Your task to perform on an android device: Open battery settings Image 0: 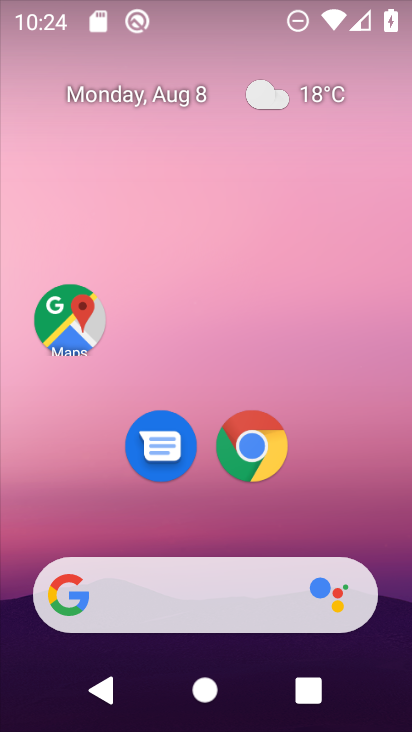
Step 0: drag from (396, 608) to (349, 113)
Your task to perform on an android device: Open battery settings Image 1: 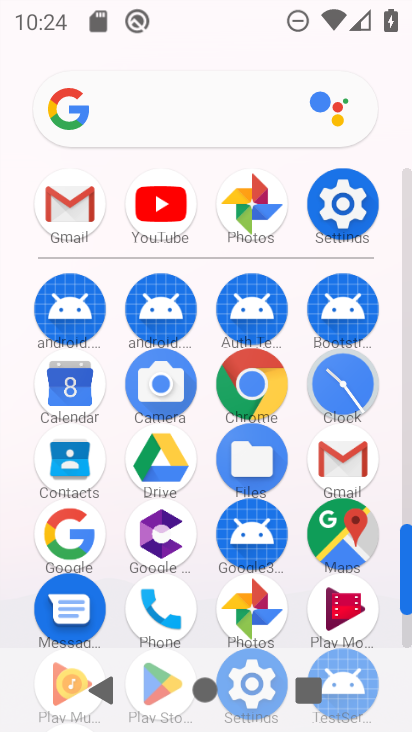
Step 1: click (408, 636)
Your task to perform on an android device: Open battery settings Image 2: 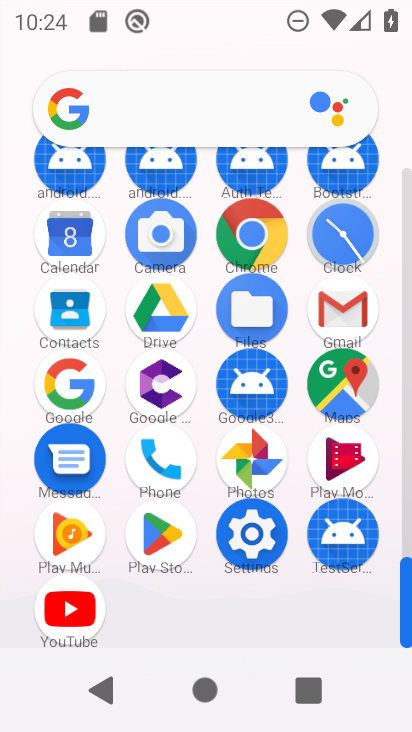
Step 2: click (252, 540)
Your task to perform on an android device: Open battery settings Image 3: 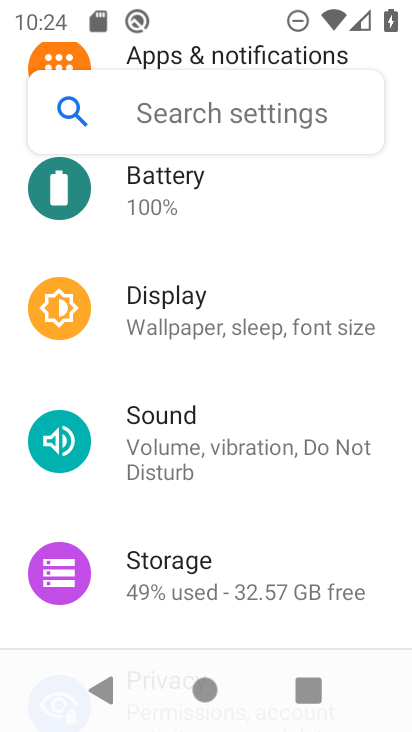
Step 3: drag from (286, 311) to (285, 475)
Your task to perform on an android device: Open battery settings Image 4: 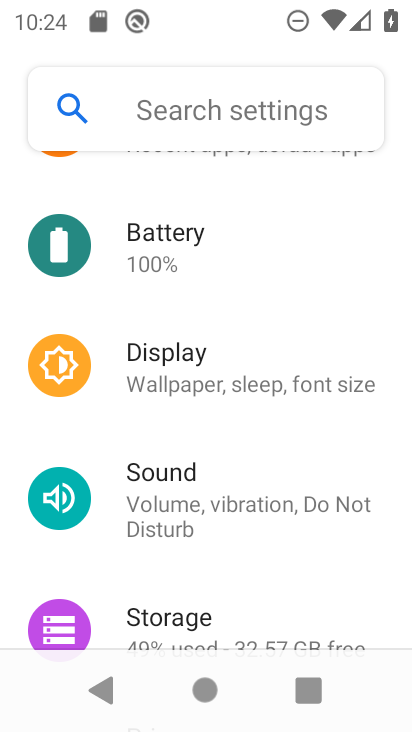
Step 4: click (158, 240)
Your task to perform on an android device: Open battery settings Image 5: 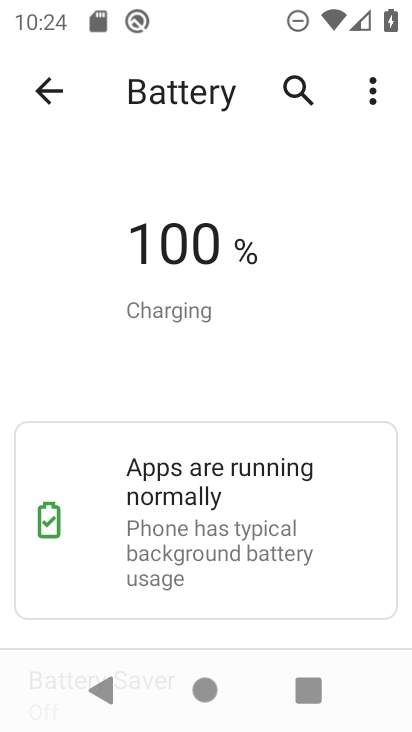
Step 5: task complete